Your task to perform on an android device: delete a single message in the gmail app Image 0: 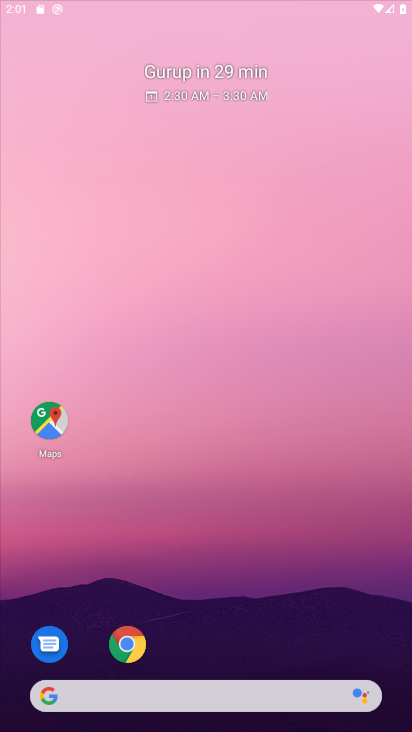
Step 0: drag from (281, 450) to (333, 73)
Your task to perform on an android device: delete a single message in the gmail app Image 1: 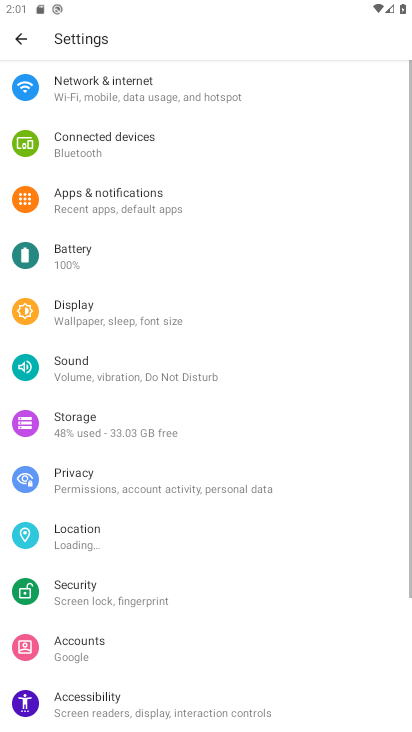
Step 1: task complete